Your task to perform on an android device: turn off sleep mode Image 0: 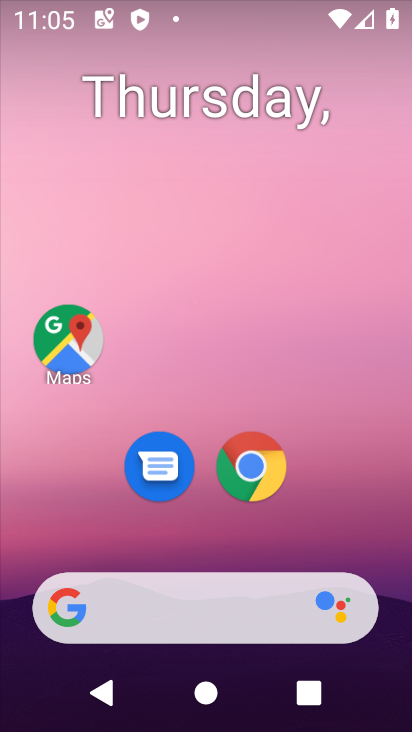
Step 0: drag from (376, 633) to (246, 129)
Your task to perform on an android device: turn off sleep mode Image 1: 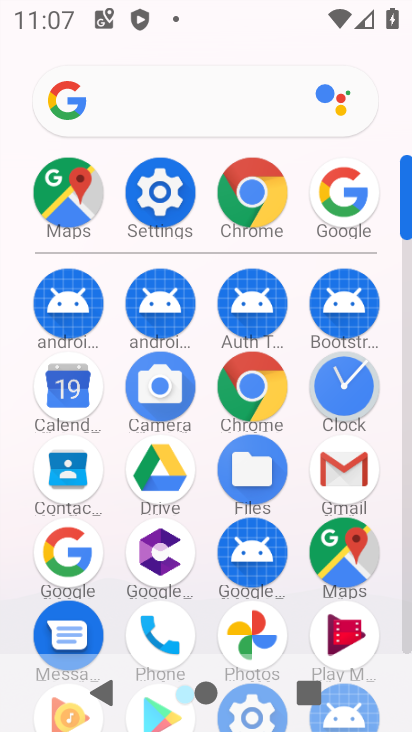
Step 1: click (151, 204)
Your task to perform on an android device: turn off sleep mode Image 2: 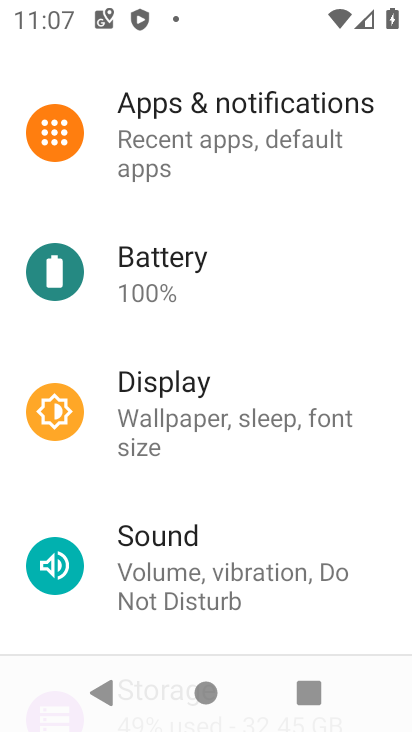
Step 2: task complete